Your task to perform on an android device: open app "Move to iOS" (install if not already installed) Image 0: 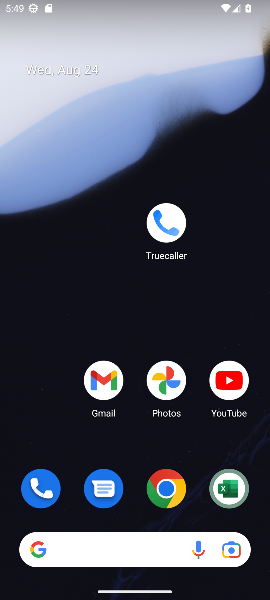
Step 0: drag from (126, 526) to (90, 106)
Your task to perform on an android device: open app "Move to iOS" (install if not already installed) Image 1: 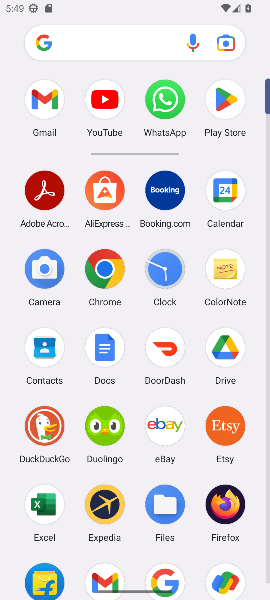
Step 1: click (220, 99)
Your task to perform on an android device: open app "Move to iOS" (install if not already installed) Image 2: 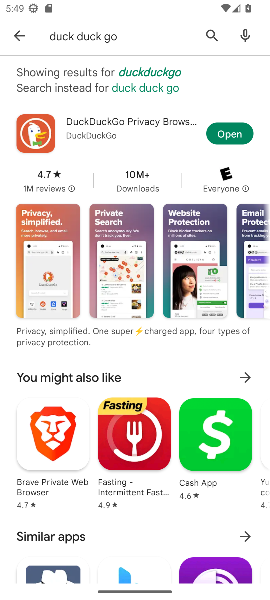
Step 2: click (203, 43)
Your task to perform on an android device: open app "Move to iOS" (install if not already installed) Image 3: 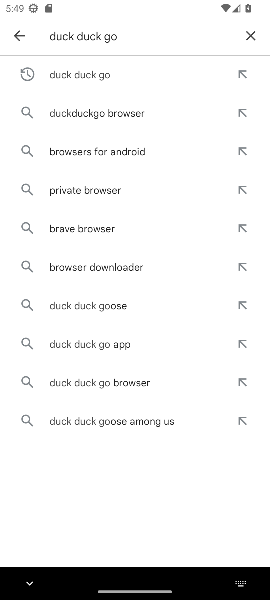
Step 3: click (244, 43)
Your task to perform on an android device: open app "Move to iOS" (install if not already installed) Image 4: 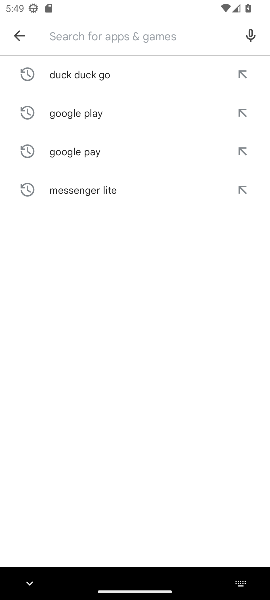
Step 4: type "move iso"
Your task to perform on an android device: open app "Move to iOS" (install if not already installed) Image 5: 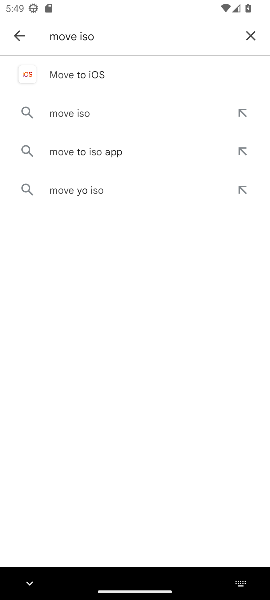
Step 5: click (111, 66)
Your task to perform on an android device: open app "Move to iOS" (install if not already installed) Image 6: 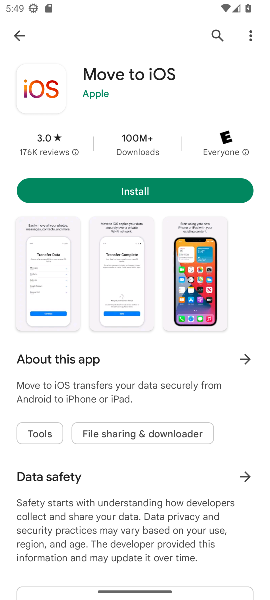
Step 6: click (159, 187)
Your task to perform on an android device: open app "Move to iOS" (install if not already installed) Image 7: 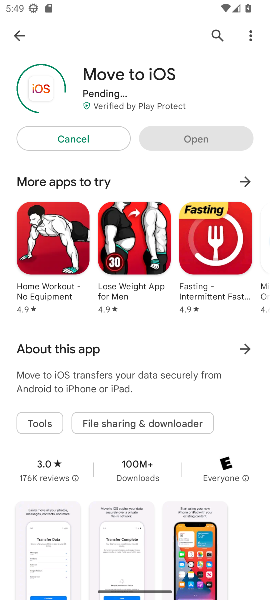
Step 7: task complete